Your task to perform on an android device: change text size in settings app Image 0: 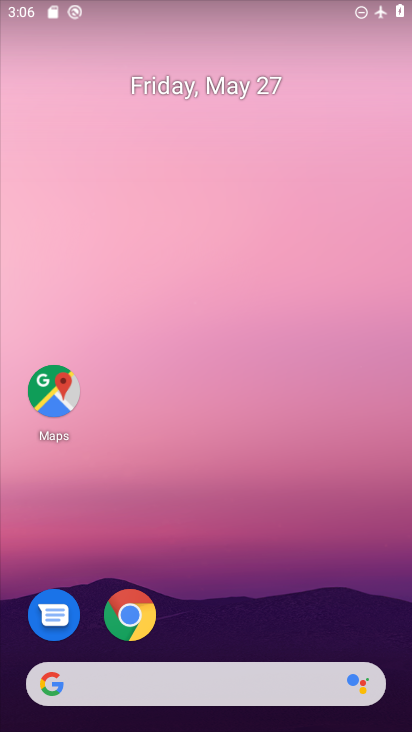
Step 0: drag from (301, 529) to (167, 24)
Your task to perform on an android device: change text size in settings app Image 1: 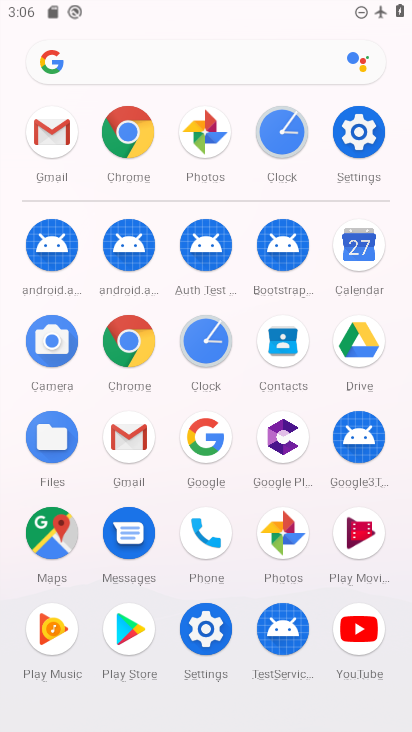
Step 1: click (365, 135)
Your task to perform on an android device: change text size in settings app Image 2: 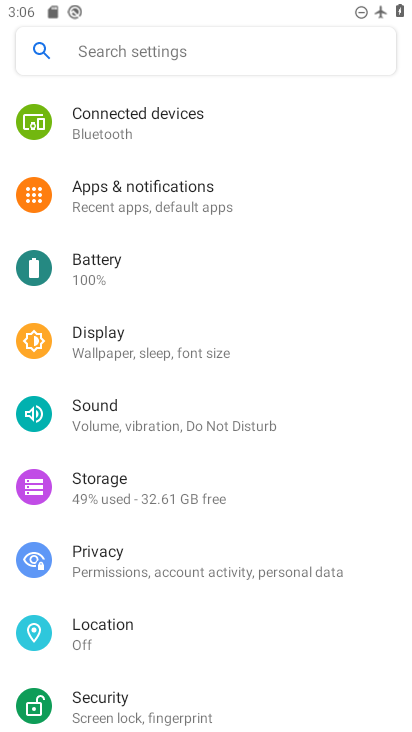
Step 2: click (153, 341)
Your task to perform on an android device: change text size in settings app Image 3: 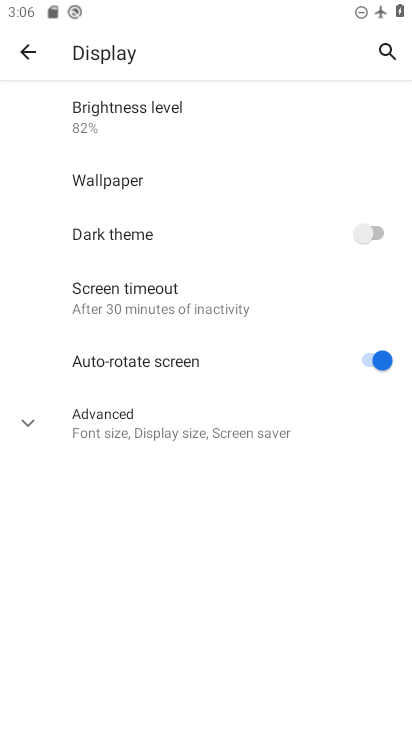
Step 3: click (161, 422)
Your task to perform on an android device: change text size in settings app Image 4: 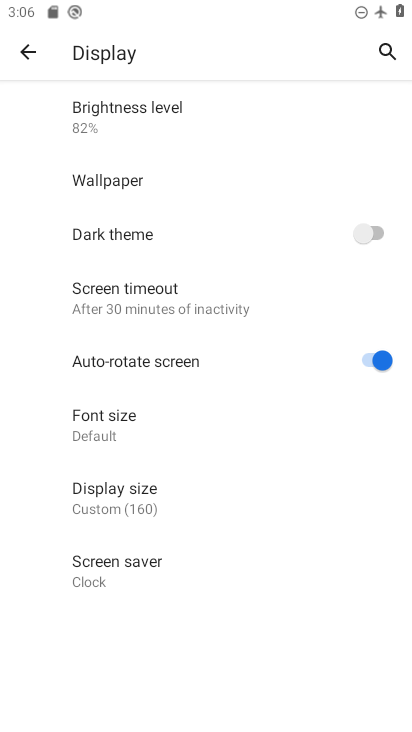
Step 4: click (144, 431)
Your task to perform on an android device: change text size in settings app Image 5: 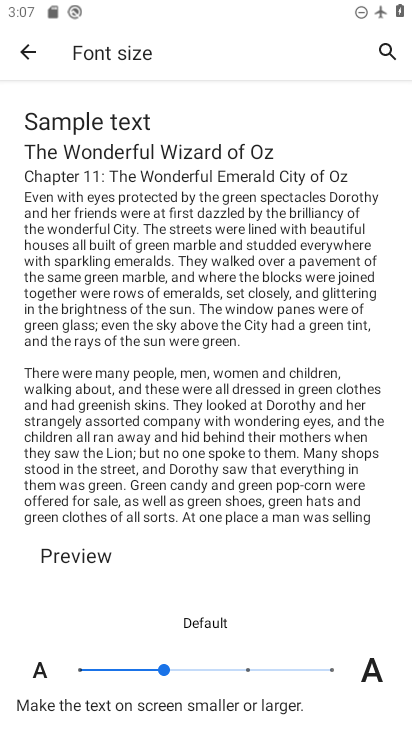
Step 5: click (76, 670)
Your task to perform on an android device: change text size in settings app Image 6: 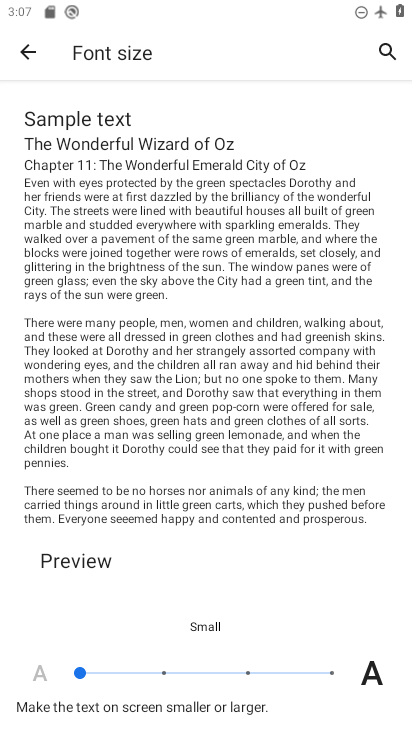
Step 6: task complete